Your task to perform on an android device: turn off location Image 0: 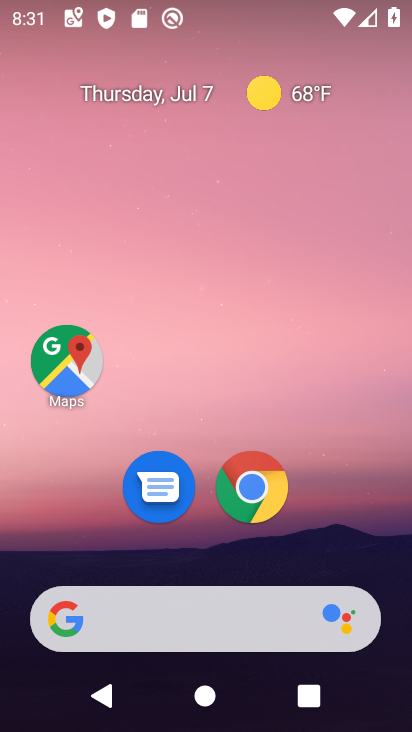
Step 0: drag from (171, 561) to (410, 189)
Your task to perform on an android device: turn off location Image 1: 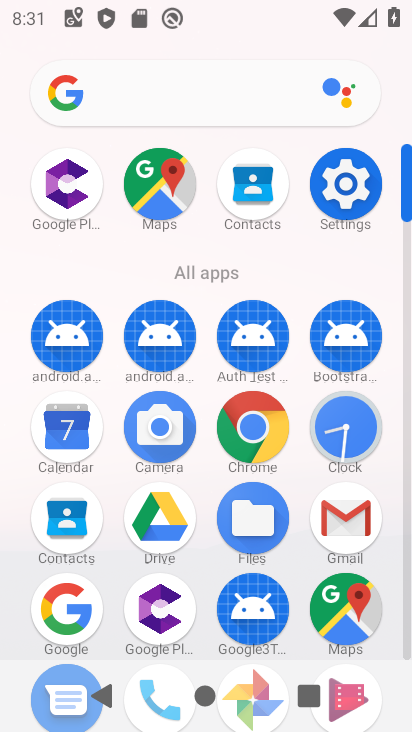
Step 1: click (339, 195)
Your task to perform on an android device: turn off location Image 2: 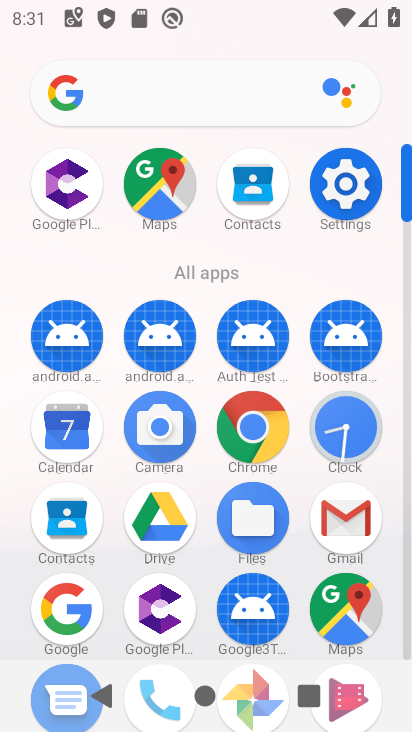
Step 2: click (337, 183)
Your task to perform on an android device: turn off location Image 3: 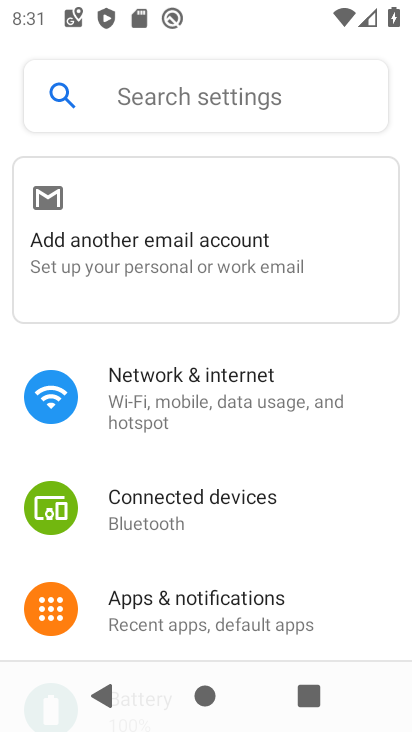
Step 3: drag from (236, 555) to (216, 70)
Your task to perform on an android device: turn off location Image 4: 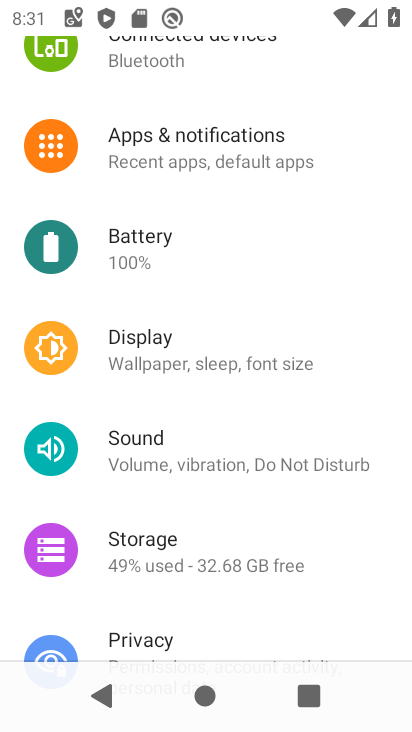
Step 4: drag from (138, 503) to (127, 76)
Your task to perform on an android device: turn off location Image 5: 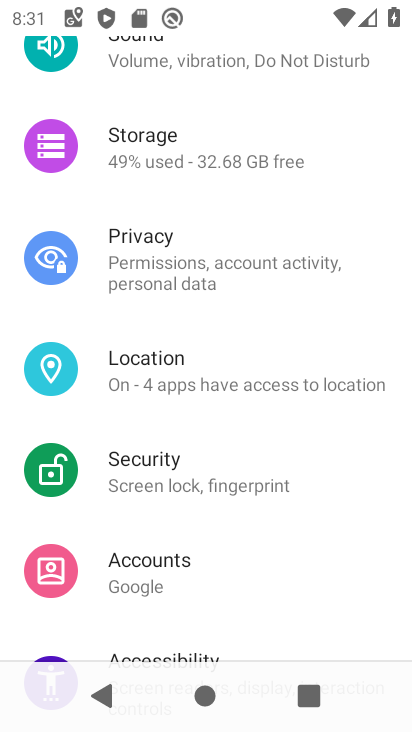
Step 5: click (152, 373)
Your task to perform on an android device: turn off location Image 6: 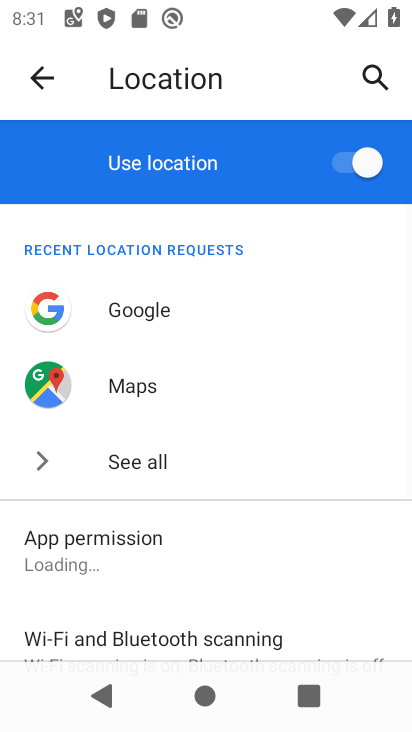
Step 6: click (338, 165)
Your task to perform on an android device: turn off location Image 7: 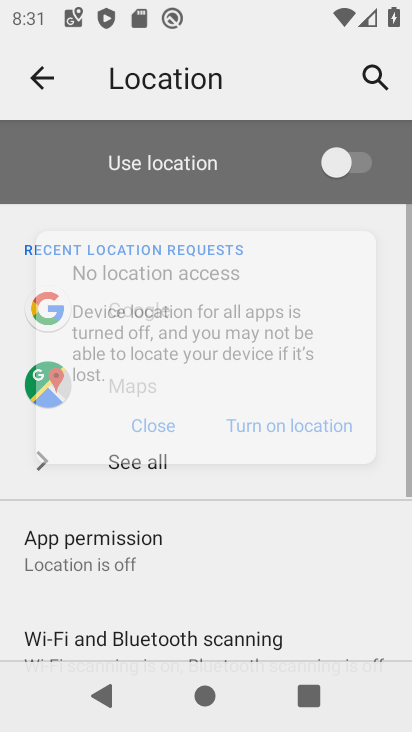
Step 7: task complete